Your task to perform on an android device: turn off notifications in google photos Image 0: 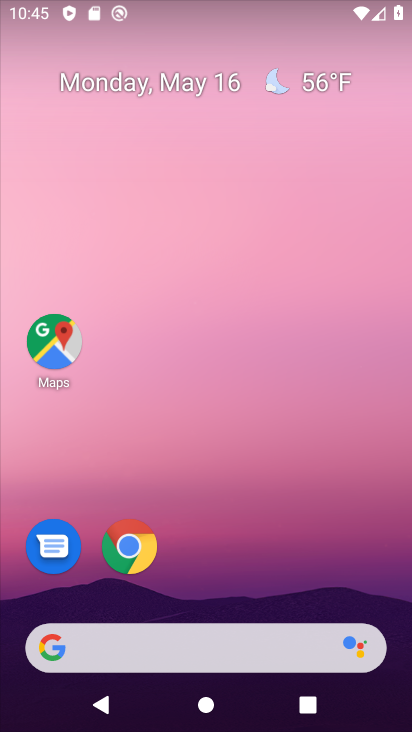
Step 0: drag from (373, 513) to (343, 28)
Your task to perform on an android device: turn off notifications in google photos Image 1: 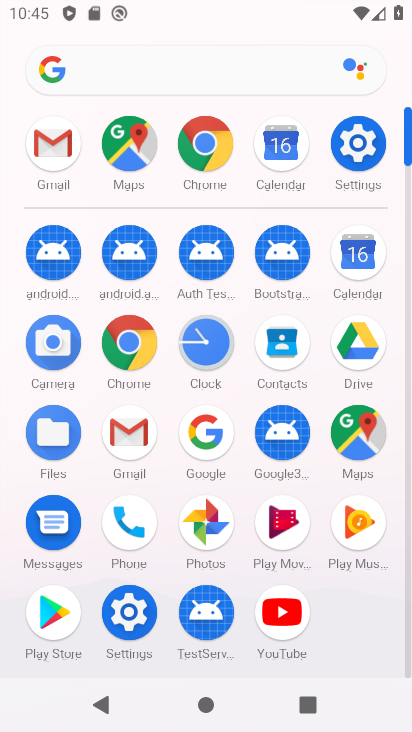
Step 1: click (204, 525)
Your task to perform on an android device: turn off notifications in google photos Image 2: 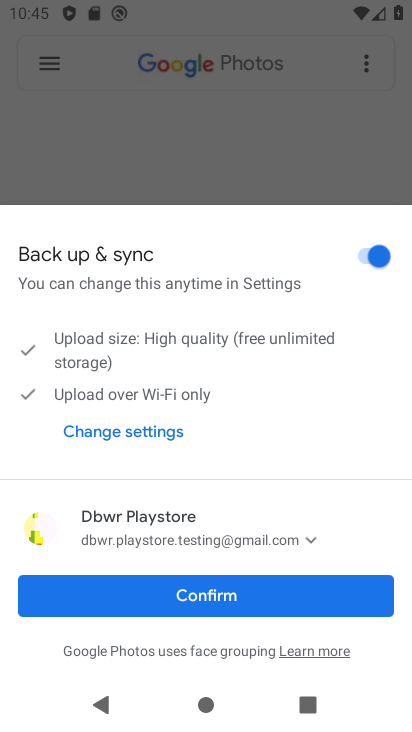
Step 2: click (199, 597)
Your task to perform on an android device: turn off notifications in google photos Image 3: 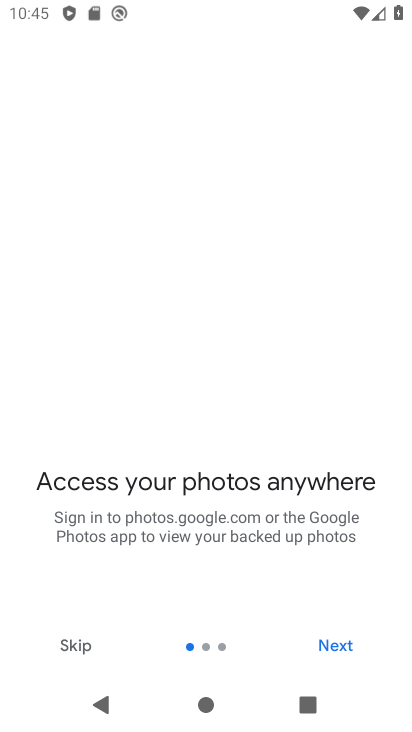
Step 3: click (332, 649)
Your task to perform on an android device: turn off notifications in google photos Image 4: 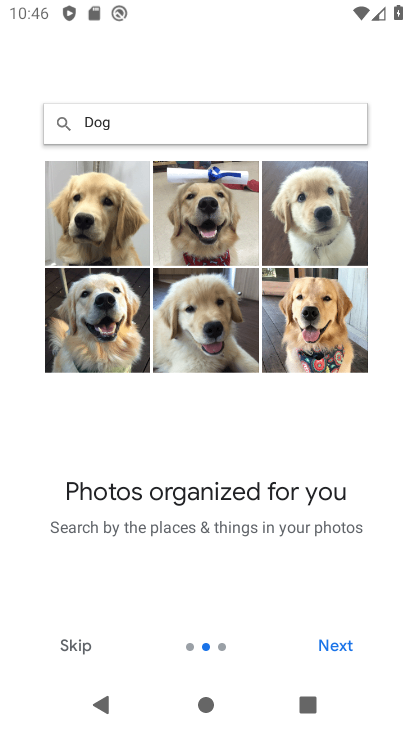
Step 4: click (333, 649)
Your task to perform on an android device: turn off notifications in google photos Image 5: 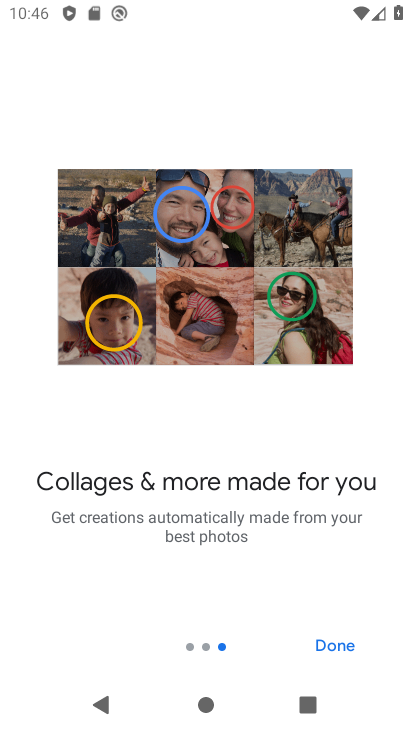
Step 5: click (333, 649)
Your task to perform on an android device: turn off notifications in google photos Image 6: 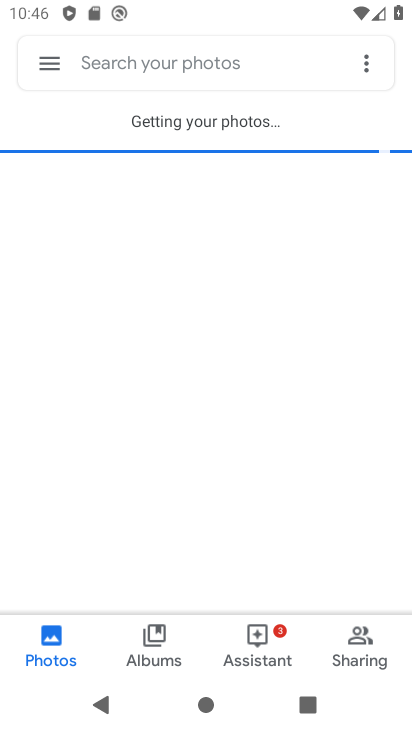
Step 6: click (44, 51)
Your task to perform on an android device: turn off notifications in google photos Image 7: 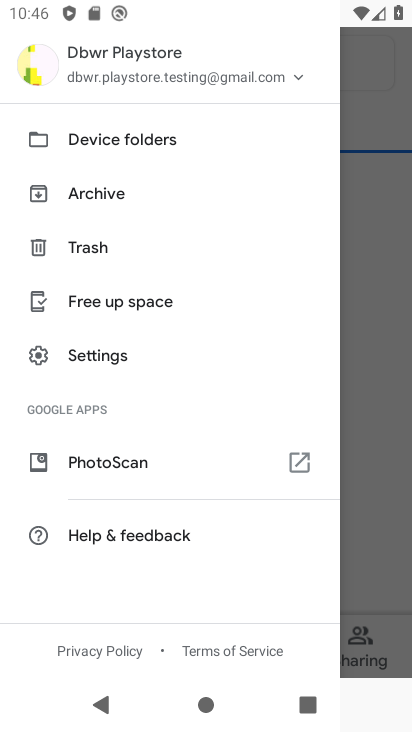
Step 7: click (103, 356)
Your task to perform on an android device: turn off notifications in google photos Image 8: 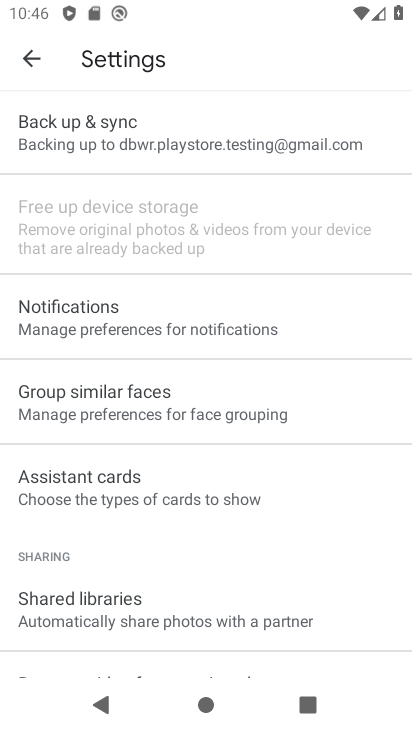
Step 8: click (102, 301)
Your task to perform on an android device: turn off notifications in google photos Image 9: 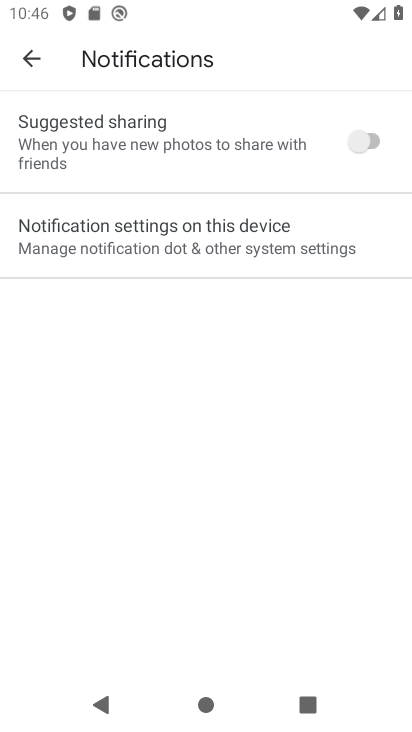
Step 9: click (135, 235)
Your task to perform on an android device: turn off notifications in google photos Image 10: 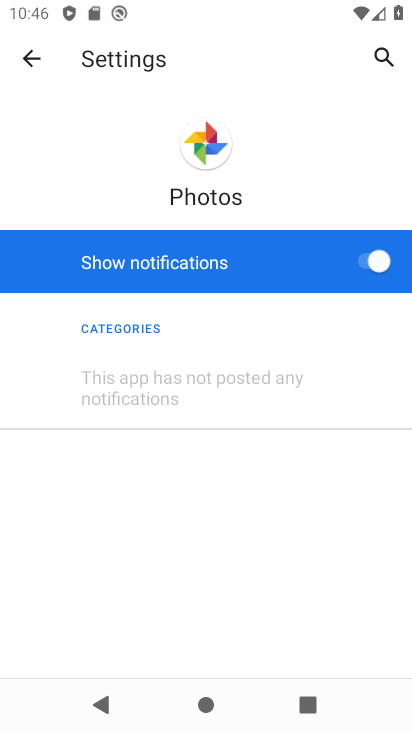
Step 10: click (357, 268)
Your task to perform on an android device: turn off notifications in google photos Image 11: 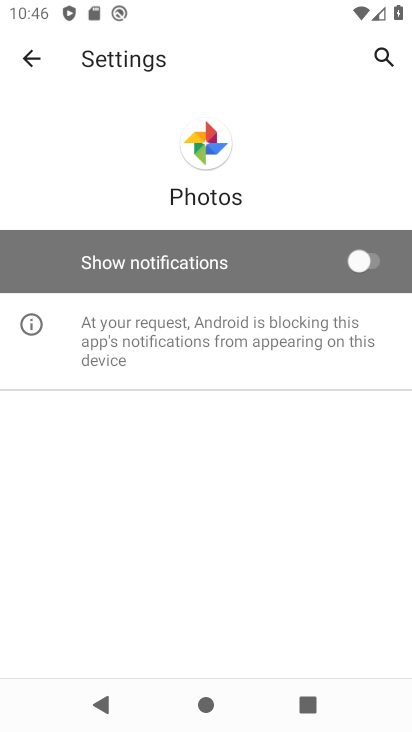
Step 11: task complete